Your task to perform on an android device: Open the calendar and show me this week's events Image 0: 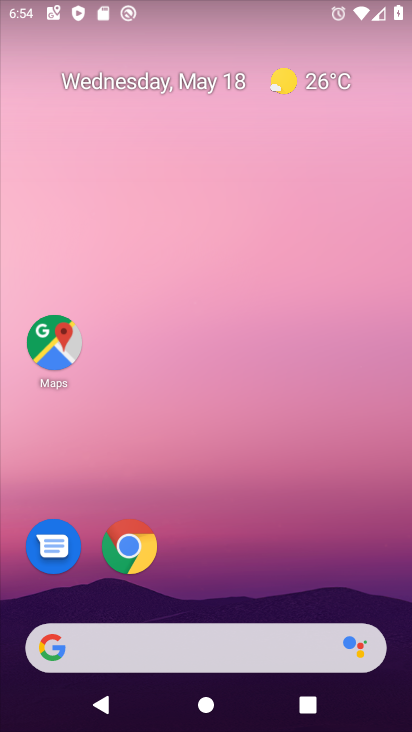
Step 0: drag from (387, 600) to (184, 46)
Your task to perform on an android device: Open the calendar and show me this week's events Image 1: 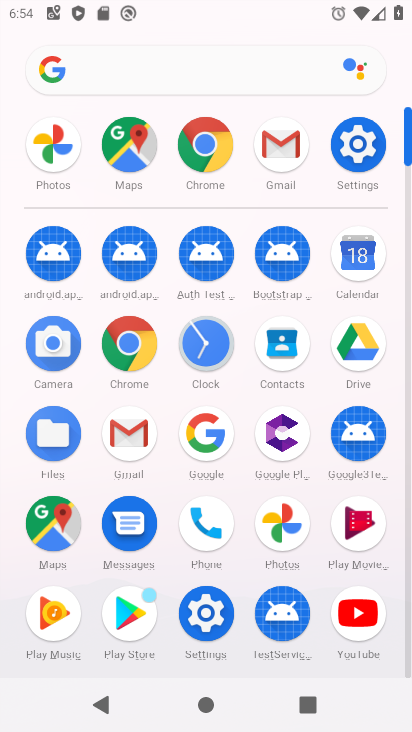
Step 1: click (355, 274)
Your task to perform on an android device: Open the calendar and show me this week's events Image 2: 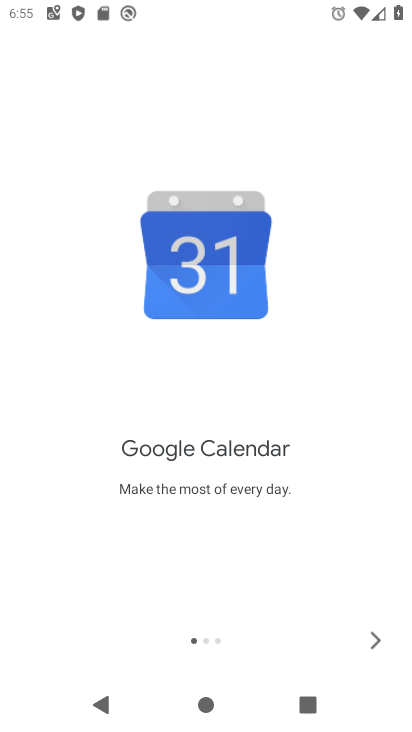
Step 2: click (379, 647)
Your task to perform on an android device: Open the calendar and show me this week's events Image 3: 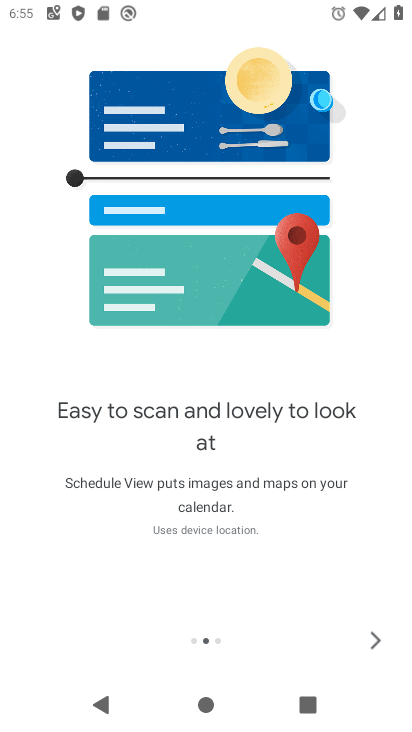
Step 3: click (379, 647)
Your task to perform on an android device: Open the calendar and show me this week's events Image 4: 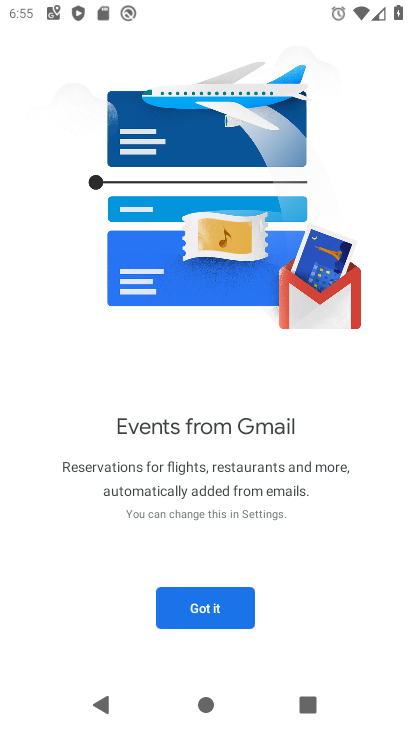
Step 4: click (379, 647)
Your task to perform on an android device: Open the calendar and show me this week's events Image 5: 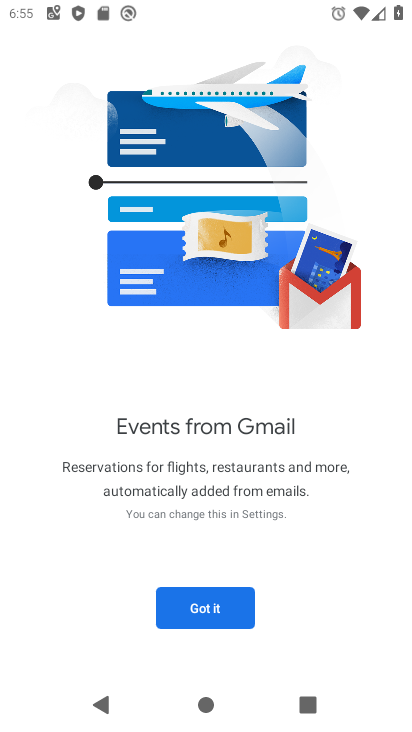
Step 5: click (220, 627)
Your task to perform on an android device: Open the calendar and show me this week's events Image 6: 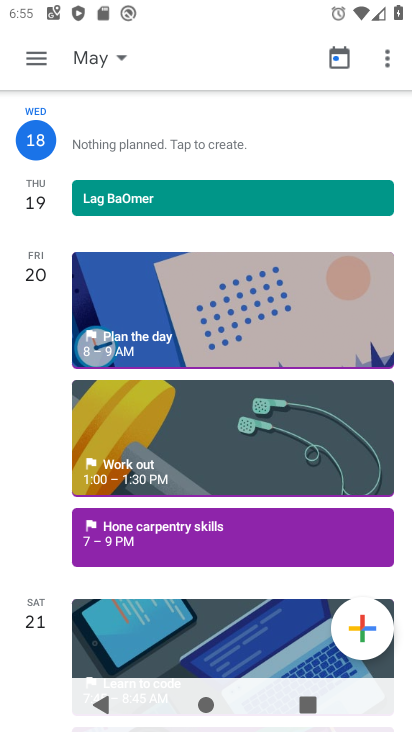
Step 6: task complete